Your task to perform on an android device: Go to battery settings Image 0: 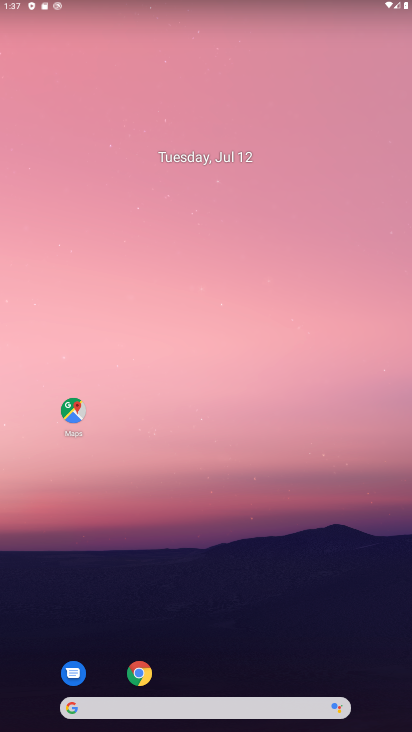
Step 0: drag from (227, 698) to (235, 380)
Your task to perform on an android device: Go to battery settings Image 1: 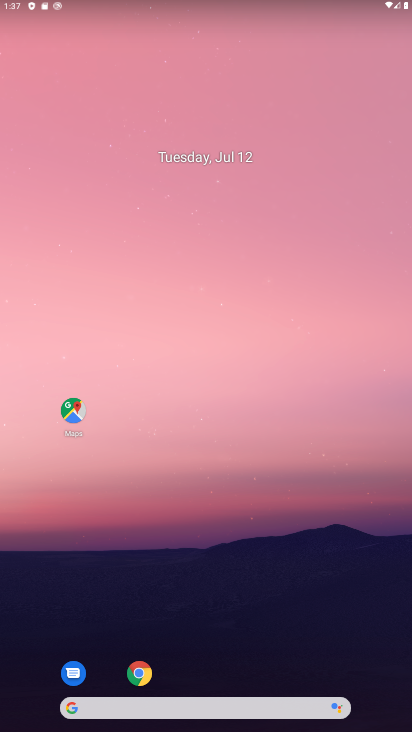
Step 1: drag from (217, 626) to (217, 262)
Your task to perform on an android device: Go to battery settings Image 2: 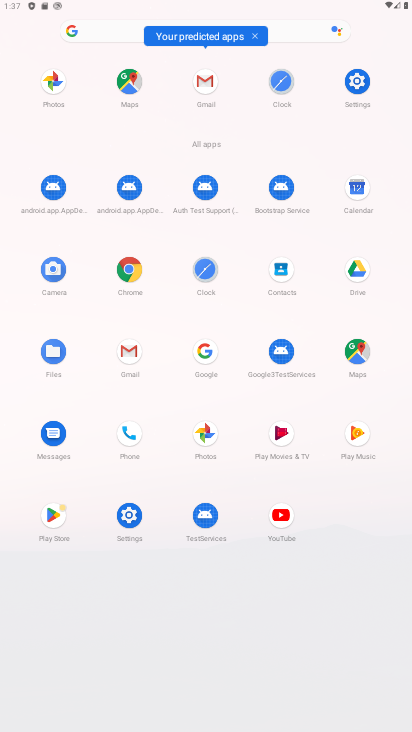
Step 2: click (130, 519)
Your task to perform on an android device: Go to battery settings Image 3: 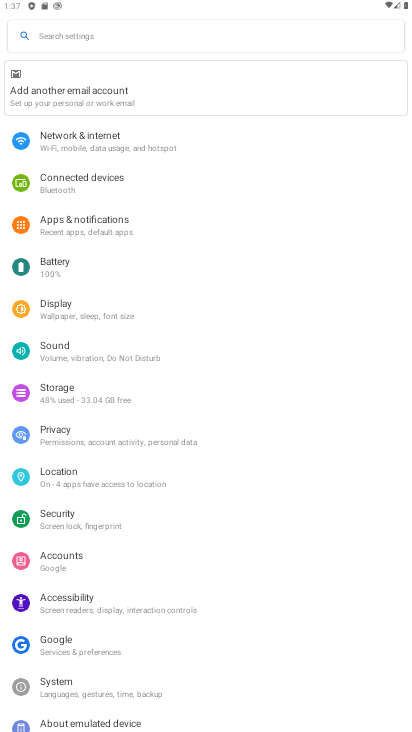
Step 3: click (50, 273)
Your task to perform on an android device: Go to battery settings Image 4: 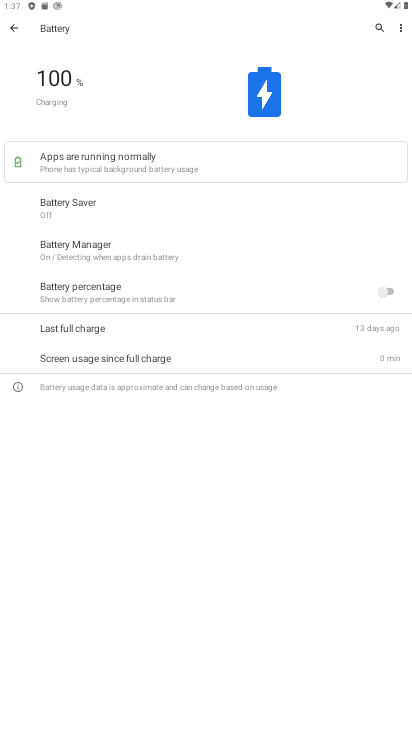
Step 4: task complete